Your task to perform on an android device: toggle translation in the chrome app Image 0: 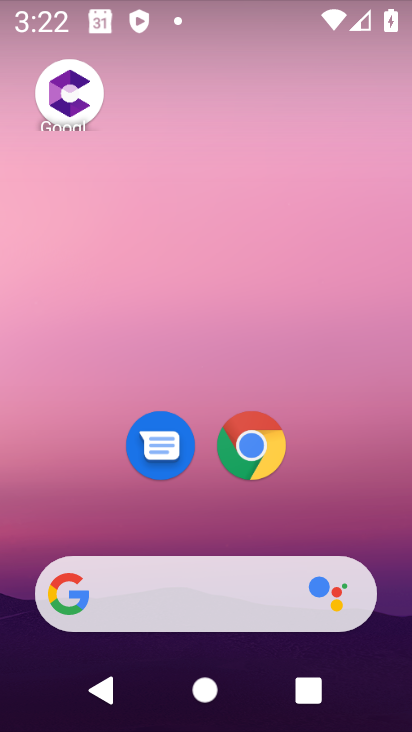
Step 0: click (249, 437)
Your task to perform on an android device: toggle translation in the chrome app Image 1: 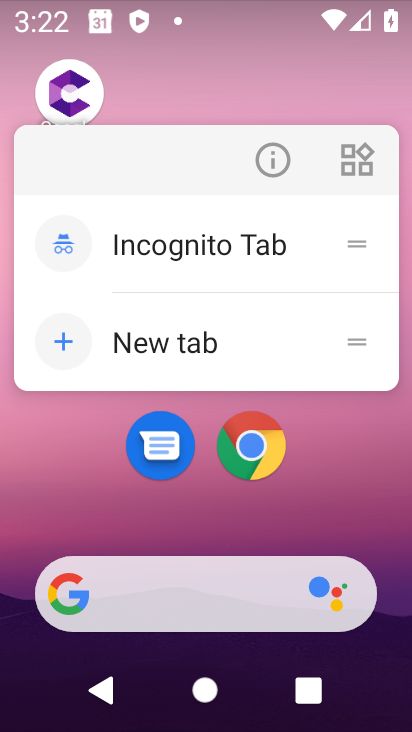
Step 1: click (235, 449)
Your task to perform on an android device: toggle translation in the chrome app Image 2: 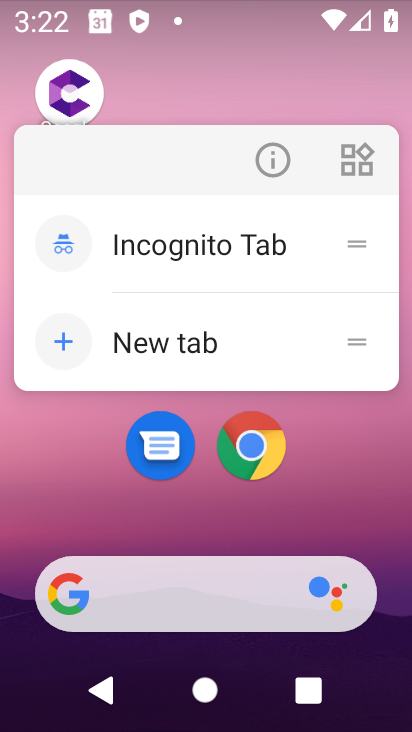
Step 2: click (250, 453)
Your task to perform on an android device: toggle translation in the chrome app Image 3: 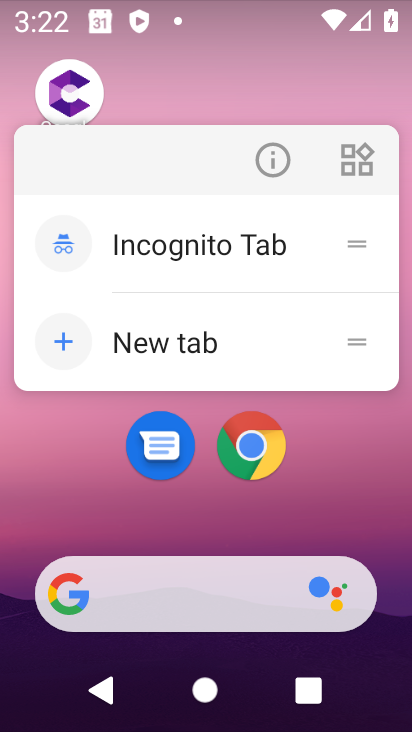
Step 3: click (258, 457)
Your task to perform on an android device: toggle translation in the chrome app Image 4: 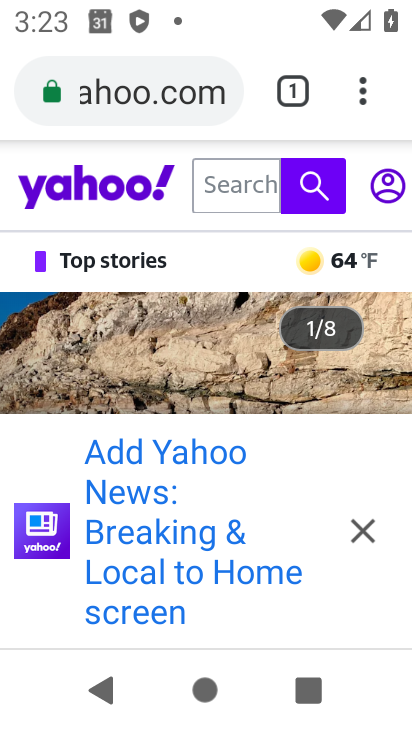
Step 4: click (355, 93)
Your task to perform on an android device: toggle translation in the chrome app Image 5: 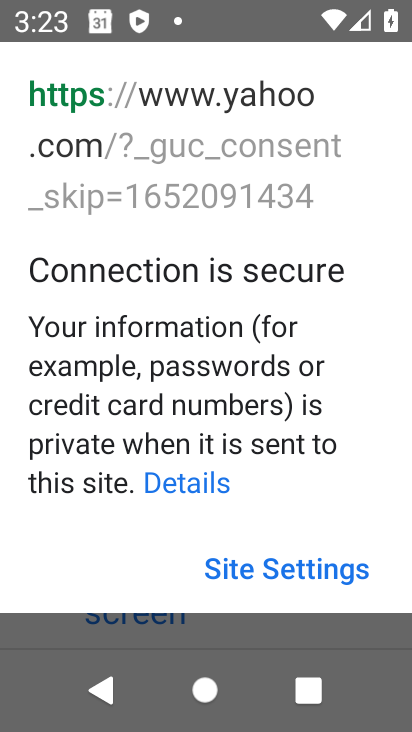
Step 5: click (199, 634)
Your task to perform on an android device: toggle translation in the chrome app Image 6: 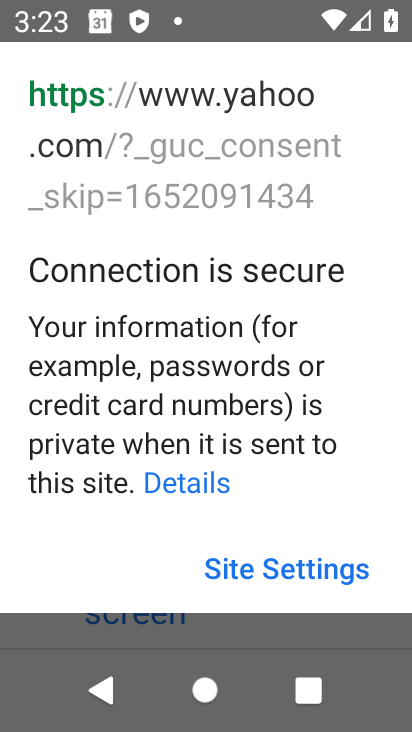
Step 6: press back button
Your task to perform on an android device: toggle translation in the chrome app Image 7: 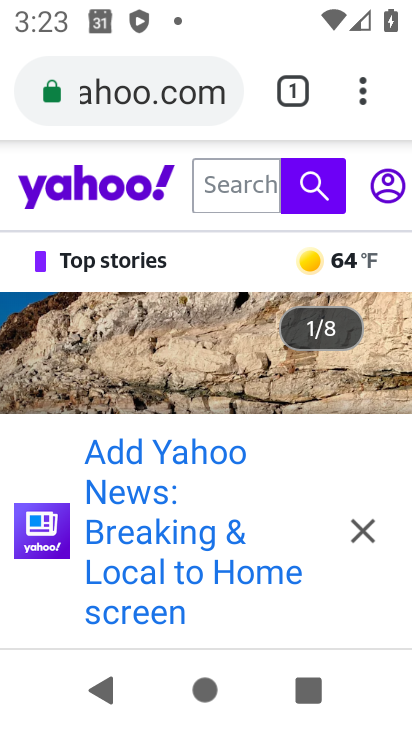
Step 7: click (355, 94)
Your task to perform on an android device: toggle translation in the chrome app Image 8: 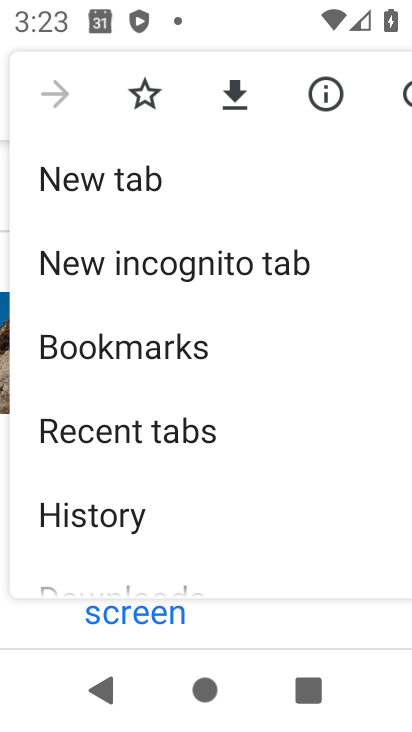
Step 8: drag from (178, 520) to (191, 226)
Your task to perform on an android device: toggle translation in the chrome app Image 9: 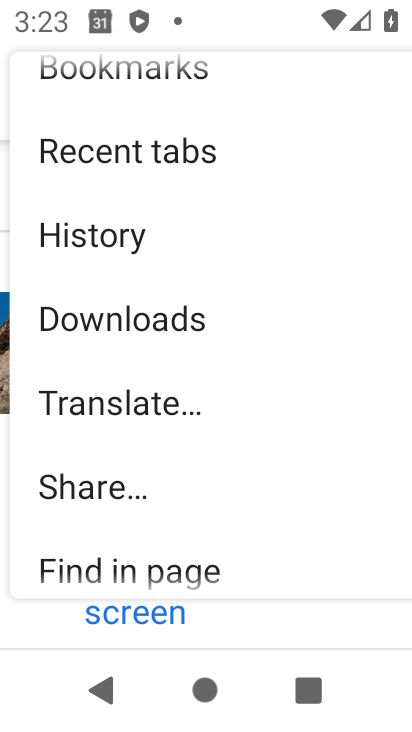
Step 9: drag from (134, 494) to (191, 233)
Your task to perform on an android device: toggle translation in the chrome app Image 10: 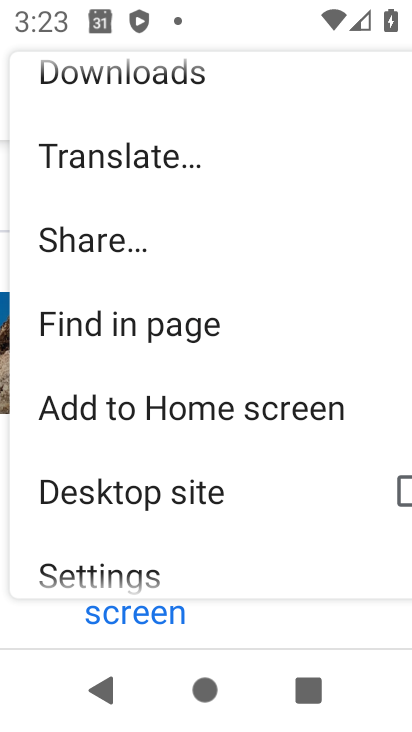
Step 10: click (159, 573)
Your task to perform on an android device: toggle translation in the chrome app Image 11: 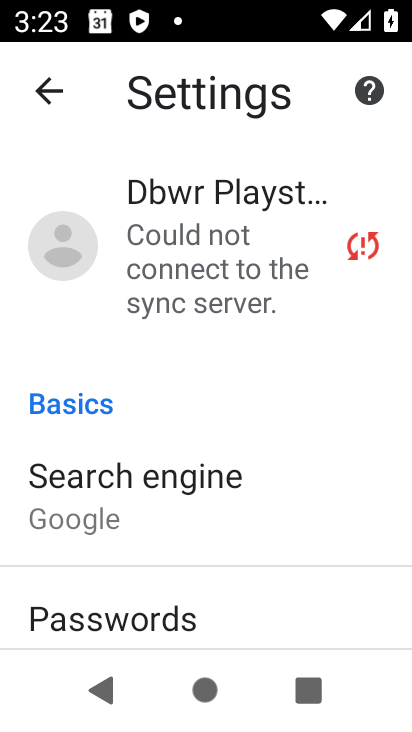
Step 11: drag from (156, 606) to (211, 310)
Your task to perform on an android device: toggle translation in the chrome app Image 12: 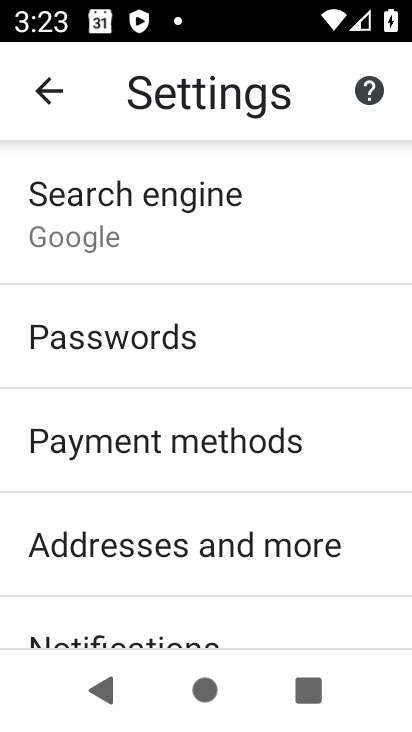
Step 12: drag from (205, 537) to (232, 378)
Your task to perform on an android device: toggle translation in the chrome app Image 13: 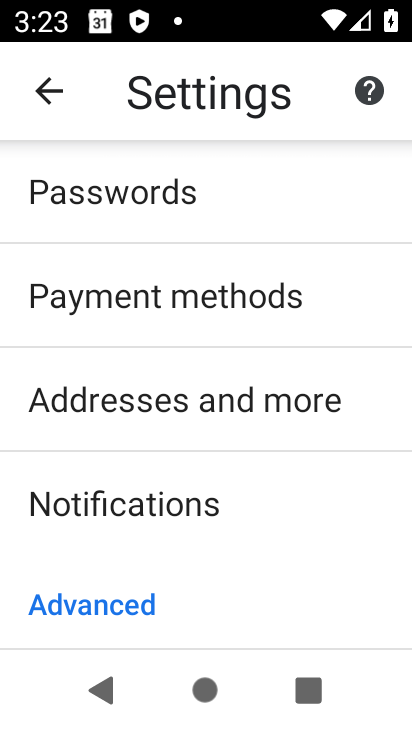
Step 13: drag from (256, 555) to (291, 307)
Your task to perform on an android device: toggle translation in the chrome app Image 14: 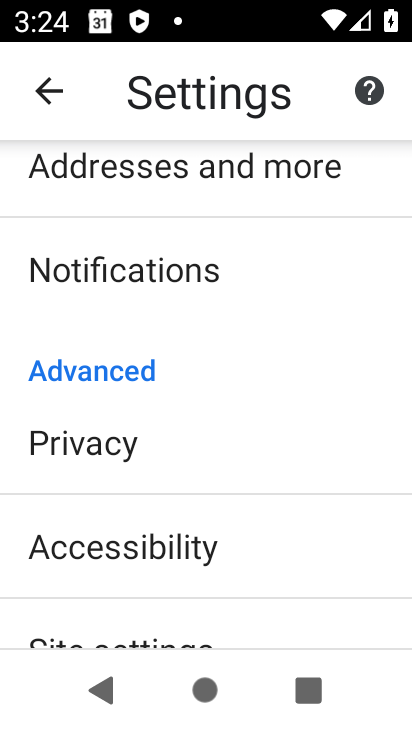
Step 14: drag from (233, 576) to (258, 389)
Your task to perform on an android device: toggle translation in the chrome app Image 15: 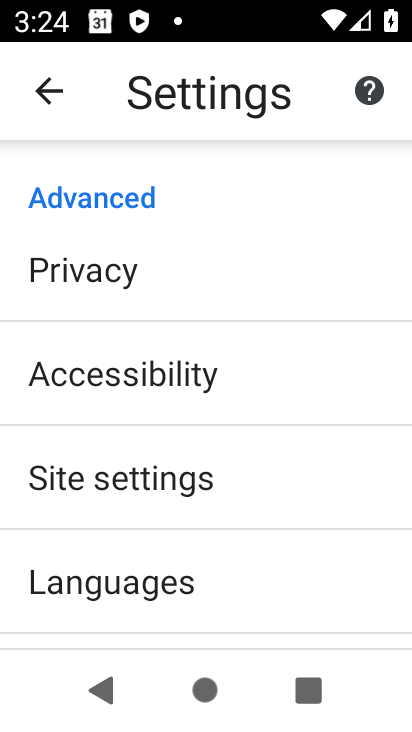
Step 15: click (188, 564)
Your task to perform on an android device: toggle translation in the chrome app Image 16: 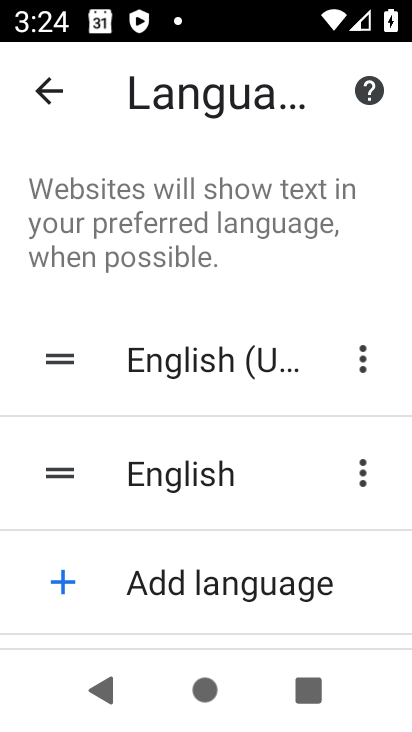
Step 16: drag from (244, 596) to (268, 305)
Your task to perform on an android device: toggle translation in the chrome app Image 17: 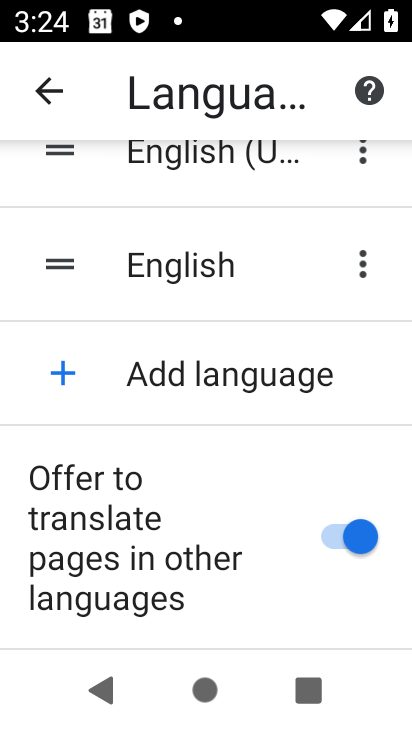
Step 17: drag from (216, 558) to (257, 300)
Your task to perform on an android device: toggle translation in the chrome app Image 18: 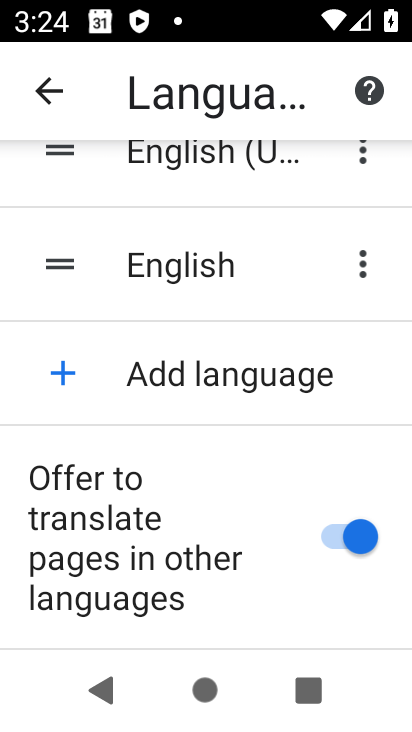
Step 18: drag from (261, 540) to (277, 387)
Your task to perform on an android device: toggle translation in the chrome app Image 19: 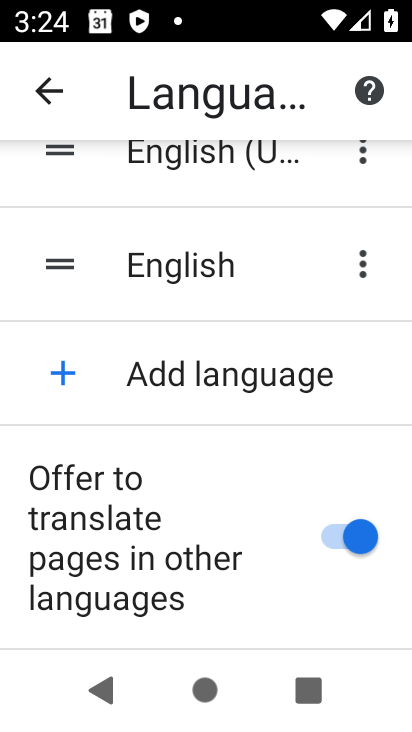
Step 19: click (335, 515)
Your task to perform on an android device: toggle translation in the chrome app Image 20: 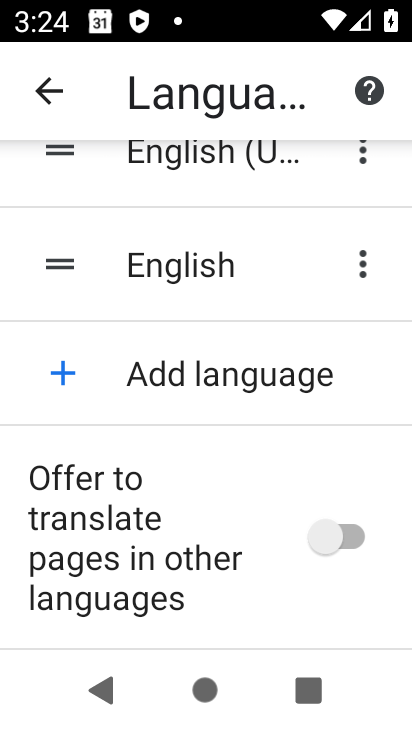
Step 20: task complete